Your task to perform on an android device: see tabs open on other devices in the chrome app Image 0: 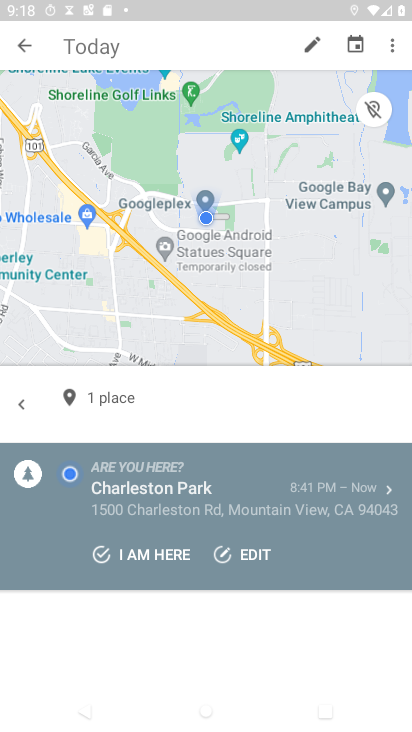
Step 0: press home button
Your task to perform on an android device: see tabs open on other devices in the chrome app Image 1: 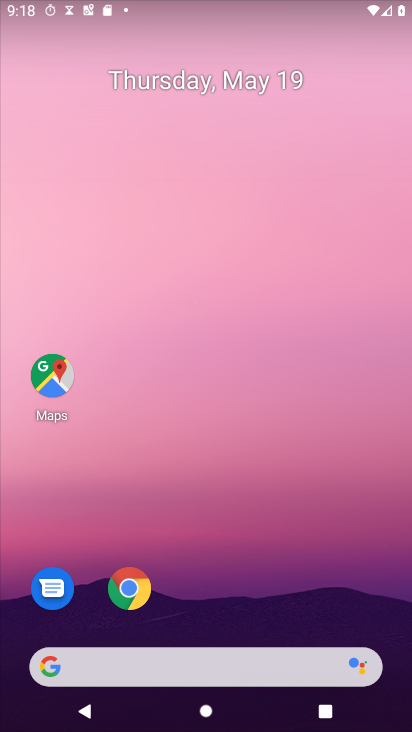
Step 1: click (121, 582)
Your task to perform on an android device: see tabs open on other devices in the chrome app Image 2: 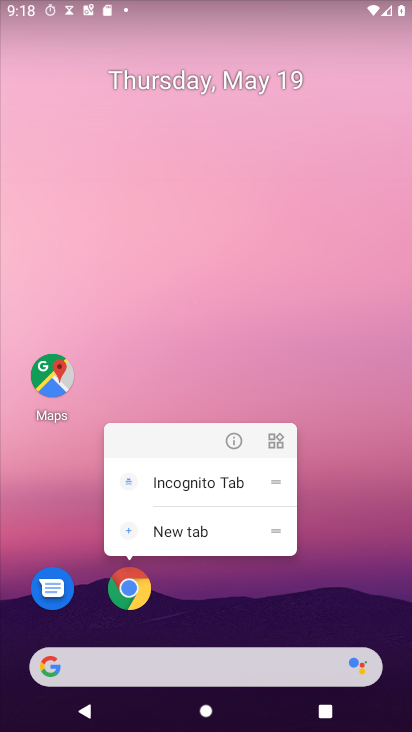
Step 2: click (132, 589)
Your task to perform on an android device: see tabs open on other devices in the chrome app Image 3: 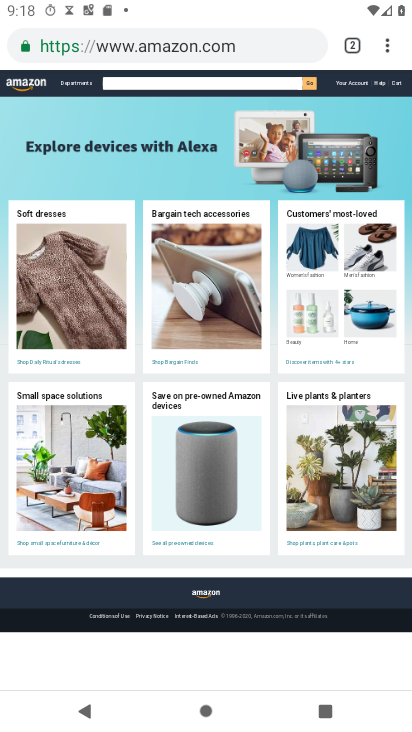
Step 3: drag from (388, 52) to (257, 217)
Your task to perform on an android device: see tabs open on other devices in the chrome app Image 4: 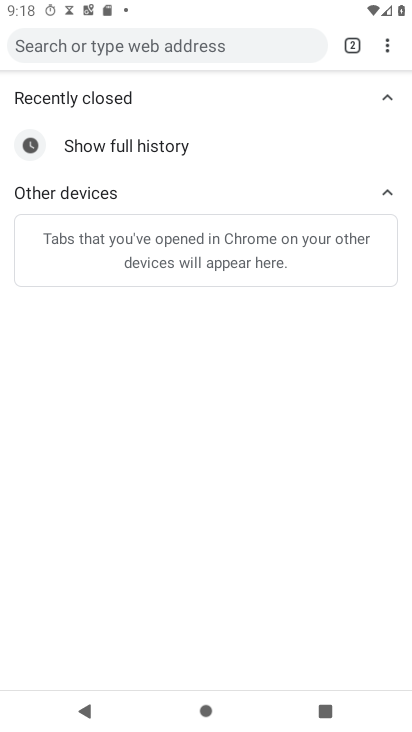
Step 4: click (387, 94)
Your task to perform on an android device: see tabs open on other devices in the chrome app Image 5: 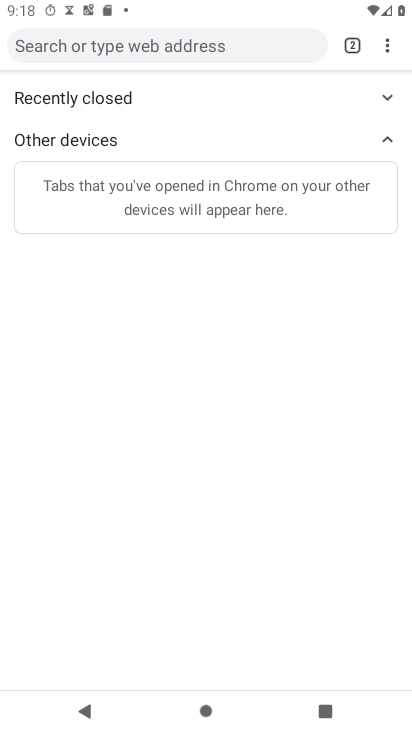
Step 5: click (385, 97)
Your task to perform on an android device: see tabs open on other devices in the chrome app Image 6: 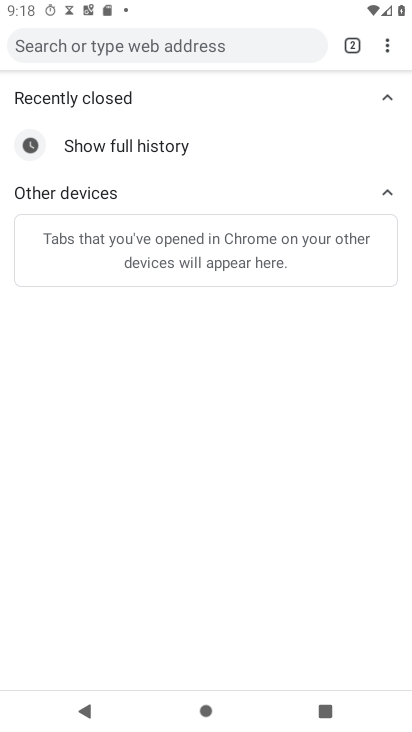
Step 6: task complete